Your task to perform on an android device: open device folders in google photos Image 0: 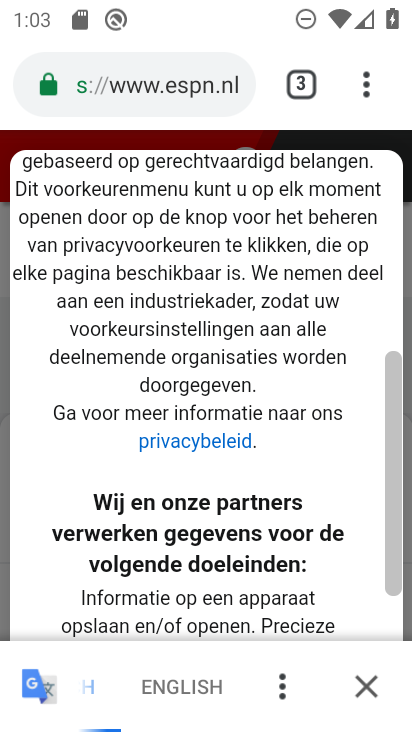
Step 0: press home button
Your task to perform on an android device: open device folders in google photos Image 1: 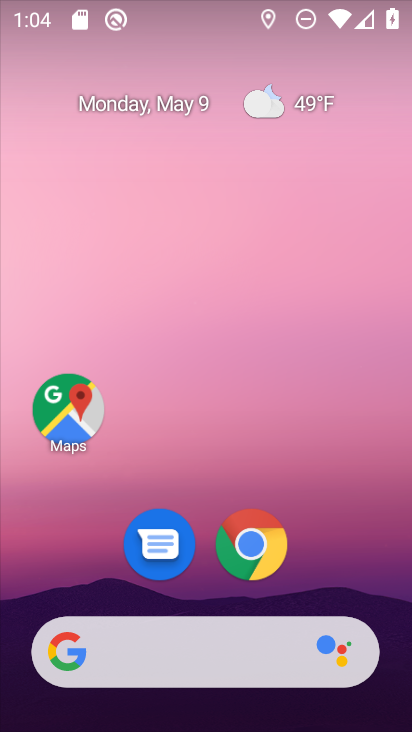
Step 1: drag from (341, 474) to (300, 87)
Your task to perform on an android device: open device folders in google photos Image 2: 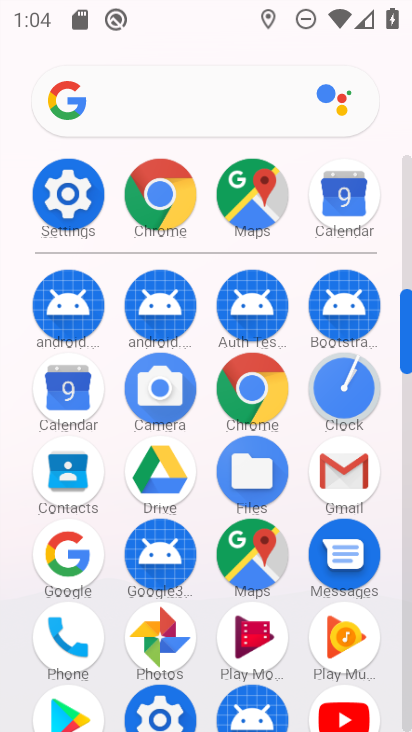
Step 2: click (168, 647)
Your task to perform on an android device: open device folders in google photos Image 3: 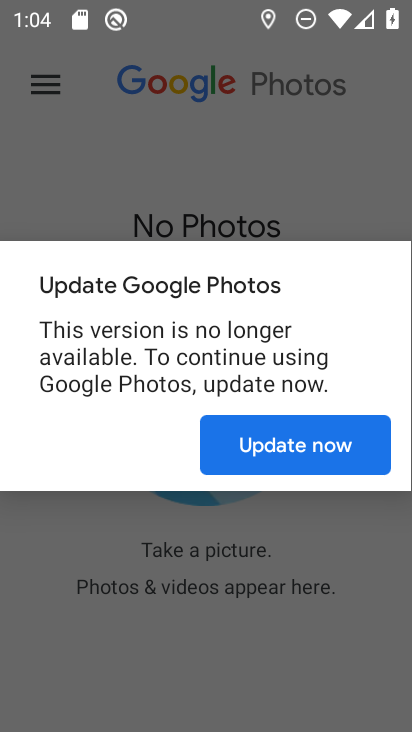
Step 3: click (298, 475)
Your task to perform on an android device: open device folders in google photos Image 4: 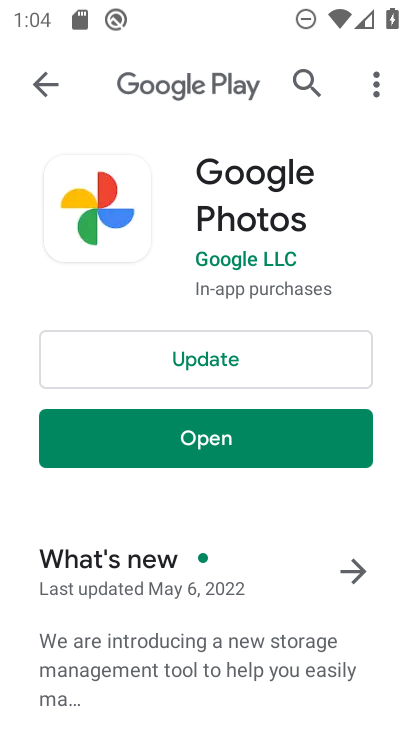
Step 4: click (184, 364)
Your task to perform on an android device: open device folders in google photos Image 5: 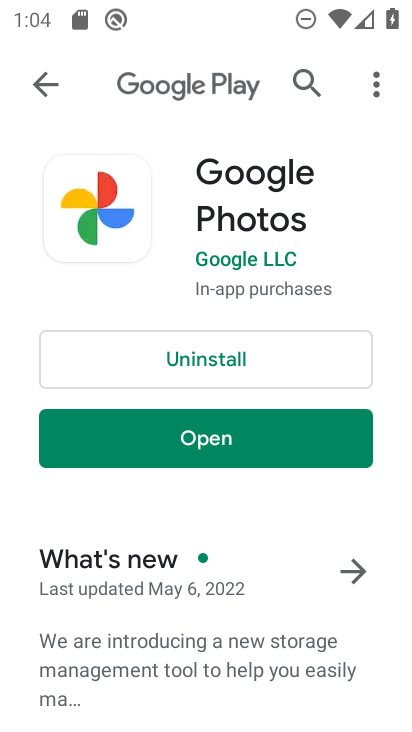
Step 5: click (228, 446)
Your task to perform on an android device: open device folders in google photos Image 6: 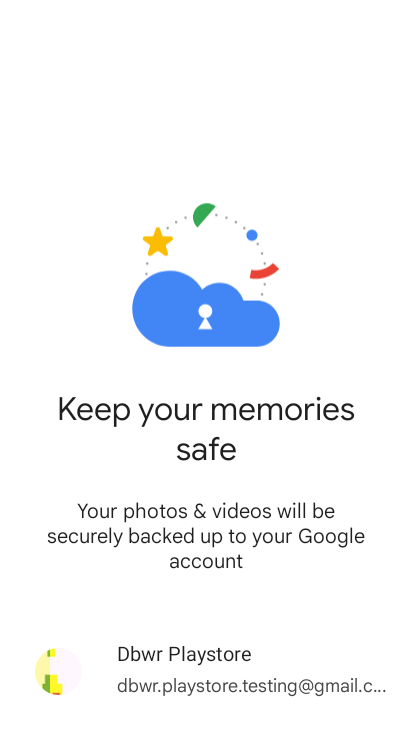
Step 6: task complete